Your task to perform on an android device: Check the news Image 0: 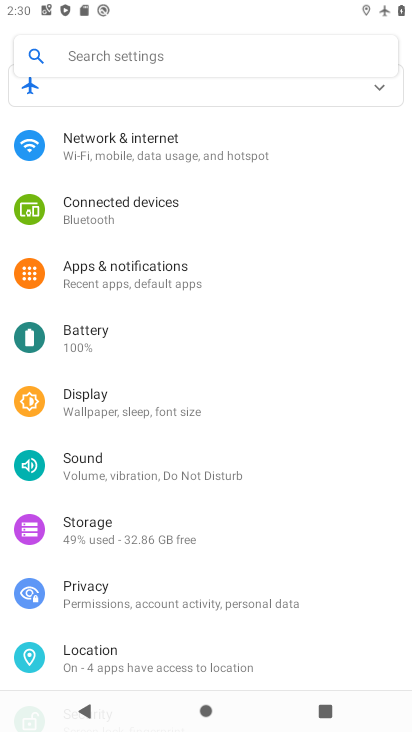
Step 0: press home button
Your task to perform on an android device: Check the news Image 1: 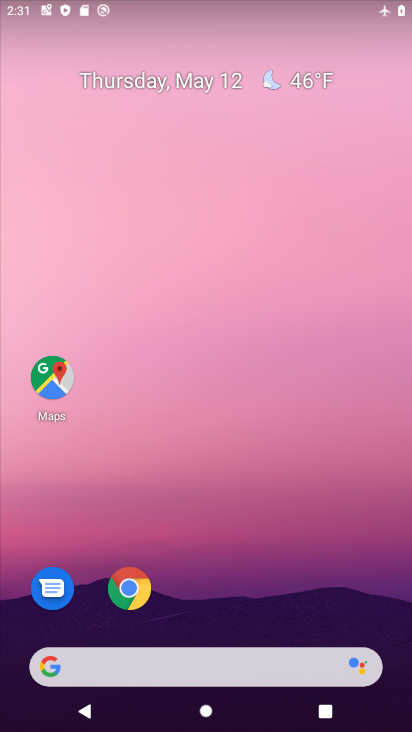
Step 1: drag from (327, 617) to (151, 429)
Your task to perform on an android device: Check the news Image 2: 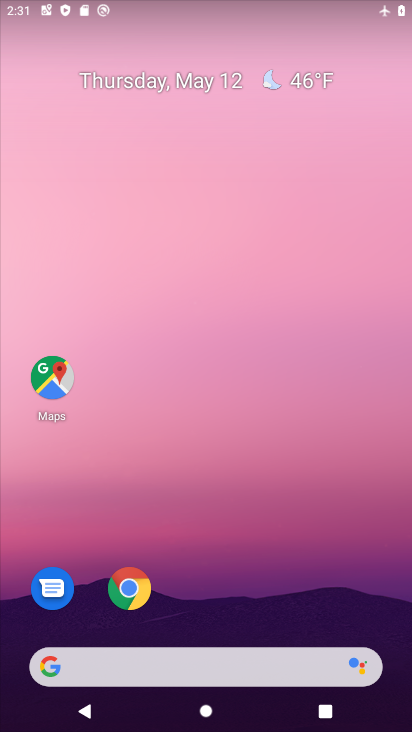
Step 2: drag from (407, 636) to (221, 3)
Your task to perform on an android device: Check the news Image 3: 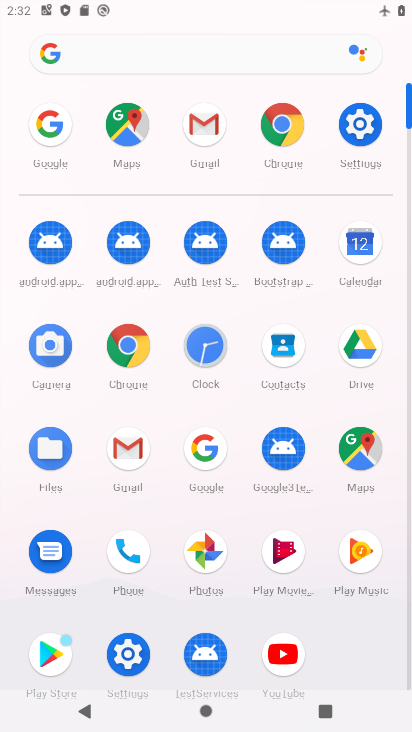
Step 3: click (127, 356)
Your task to perform on an android device: Check the news Image 4: 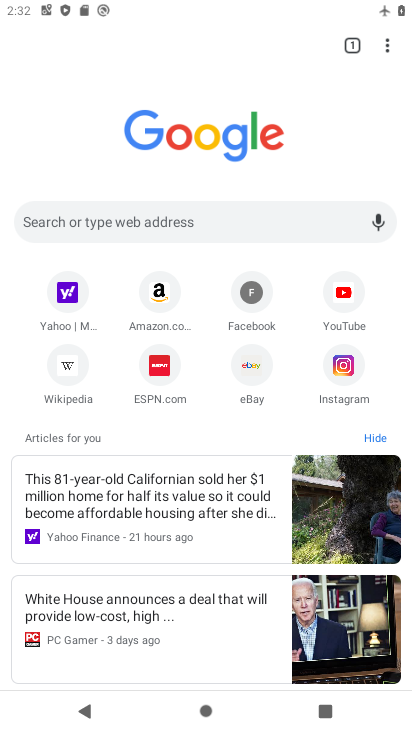
Step 4: click (153, 584)
Your task to perform on an android device: Check the news Image 5: 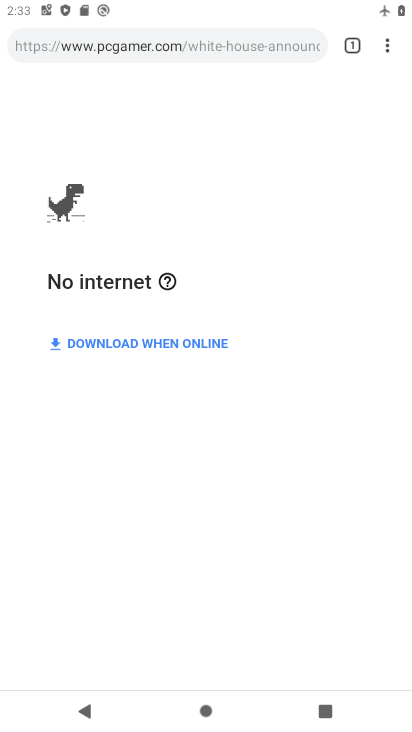
Step 5: task complete